Your task to perform on an android device: delete browsing data in the chrome app Image 0: 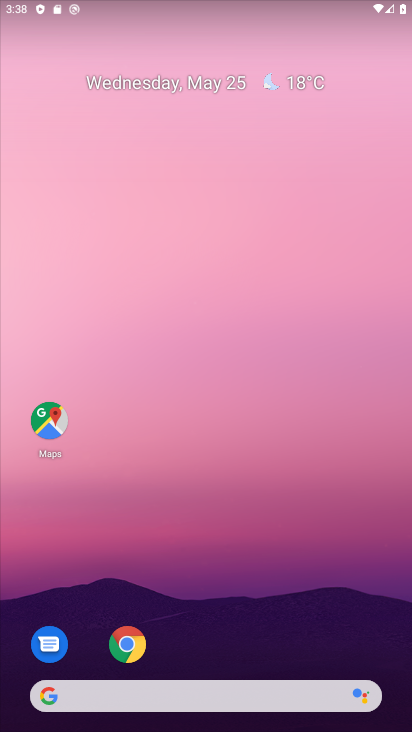
Step 0: click (127, 641)
Your task to perform on an android device: delete browsing data in the chrome app Image 1: 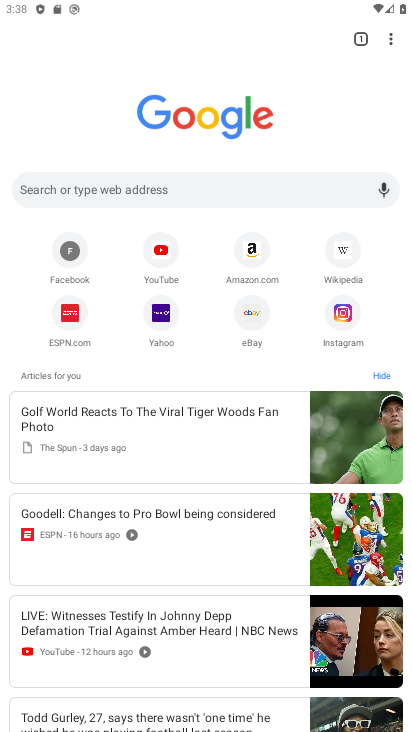
Step 1: click (392, 37)
Your task to perform on an android device: delete browsing data in the chrome app Image 2: 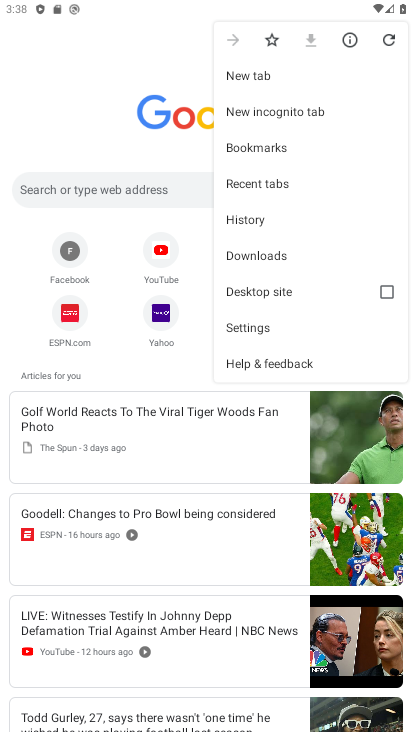
Step 2: click (254, 328)
Your task to perform on an android device: delete browsing data in the chrome app Image 3: 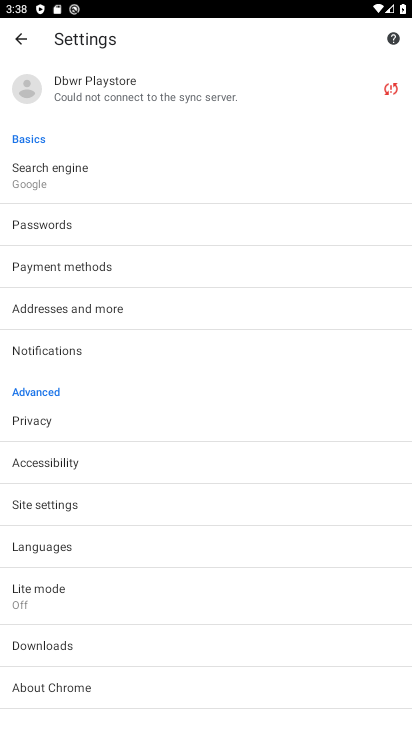
Step 3: click (34, 424)
Your task to perform on an android device: delete browsing data in the chrome app Image 4: 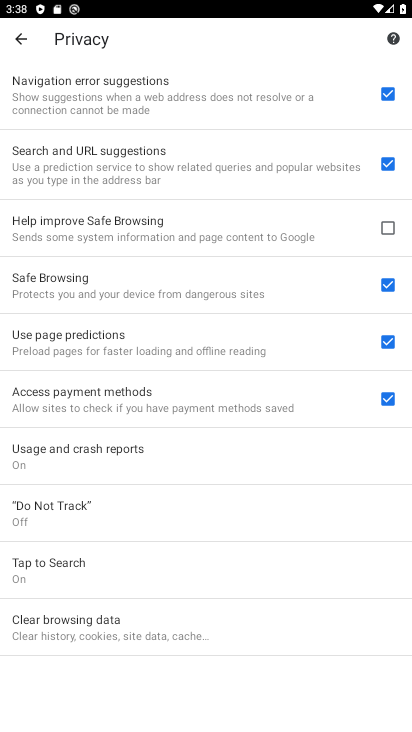
Step 4: click (132, 625)
Your task to perform on an android device: delete browsing data in the chrome app Image 5: 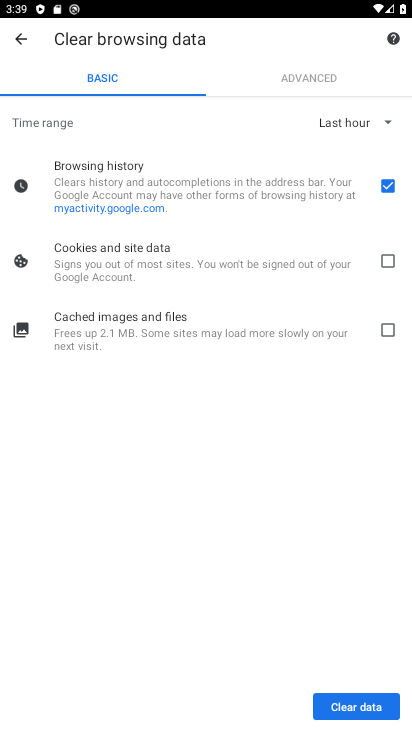
Step 5: click (352, 699)
Your task to perform on an android device: delete browsing data in the chrome app Image 6: 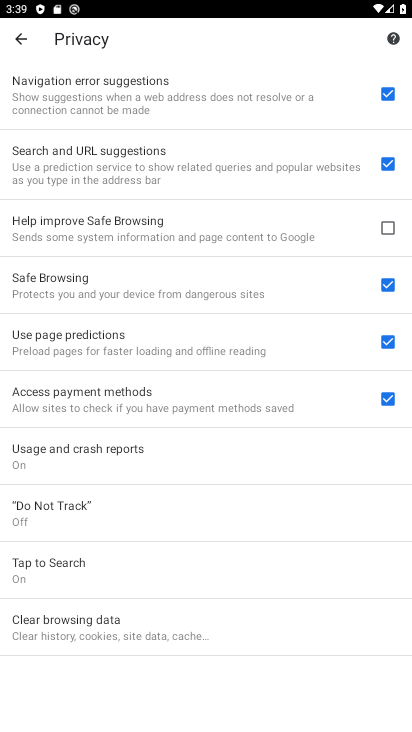
Step 6: task complete